Your task to perform on an android device: make emails show in primary in the gmail app Image 0: 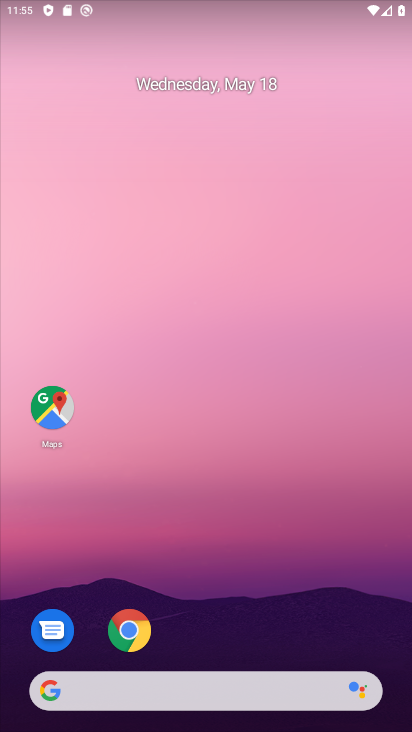
Step 0: drag from (213, 593) to (267, 145)
Your task to perform on an android device: make emails show in primary in the gmail app Image 1: 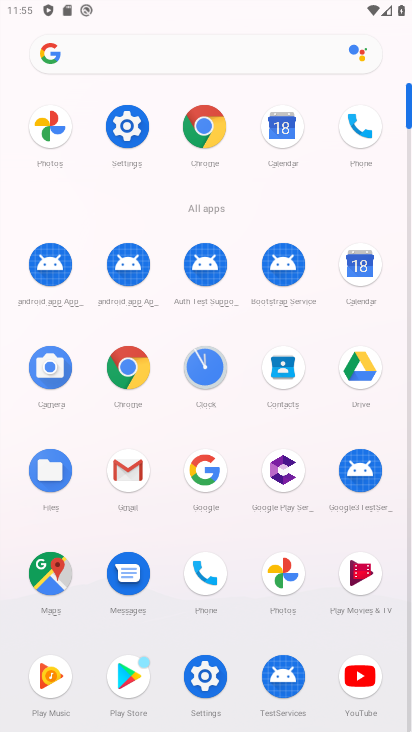
Step 1: click (116, 463)
Your task to perform on an android device: make emails show in primary in the gmail app Image 2: 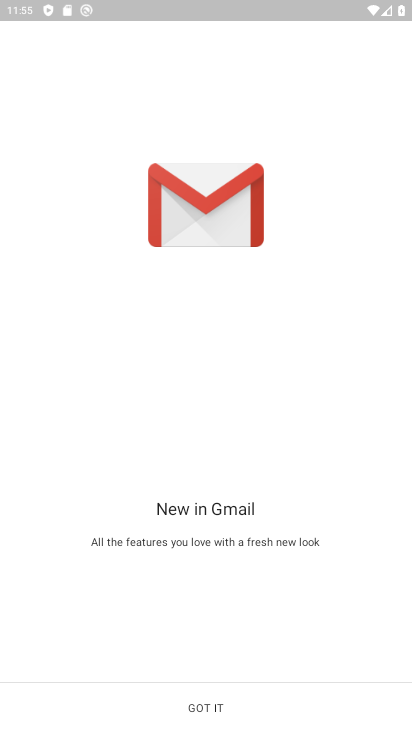
Step 2: click (202, 711)
Your task to perform on an android device: make emails show in primary in the gmail app Image 3: 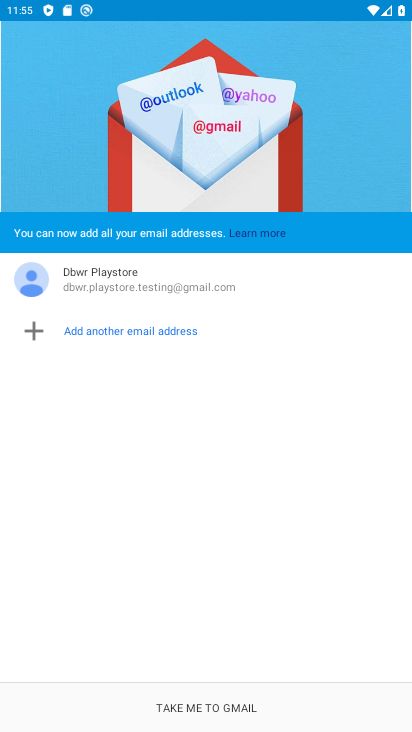
Step 3: click (84, 271)
Your task to perform on an android device: make emails show in primary in the gmail app Image 4: 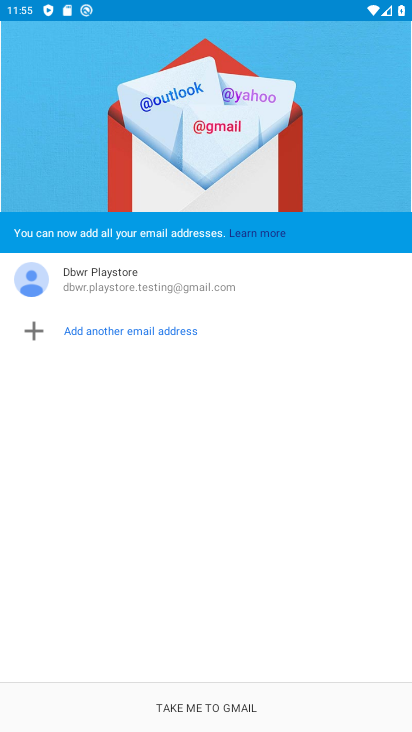
Step 4: click (199, 702)
Your task to perform on an android device: make emails show in primary in the gmail app Image 5: 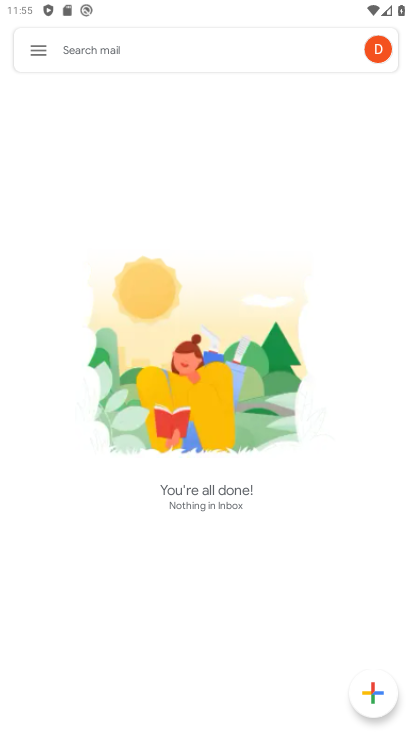
Step 5: click (24, 44)
Your task to perform on an android device: make emails show in primary in the gmail app Image 6: 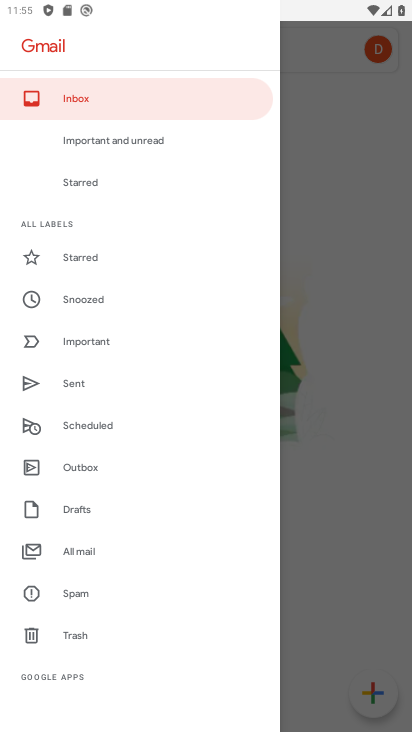
Step 6: task complete